Your task to perform on an android device: Go to Google Image 0: 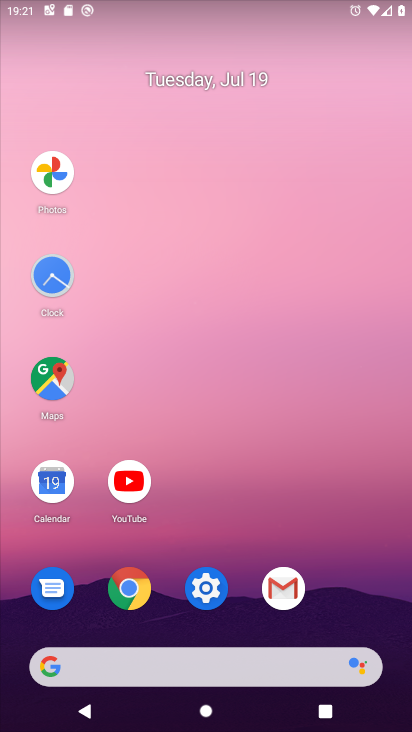
Step 0: click (45, 665)
Your task to perform on an android device: Go to Google Image 1: 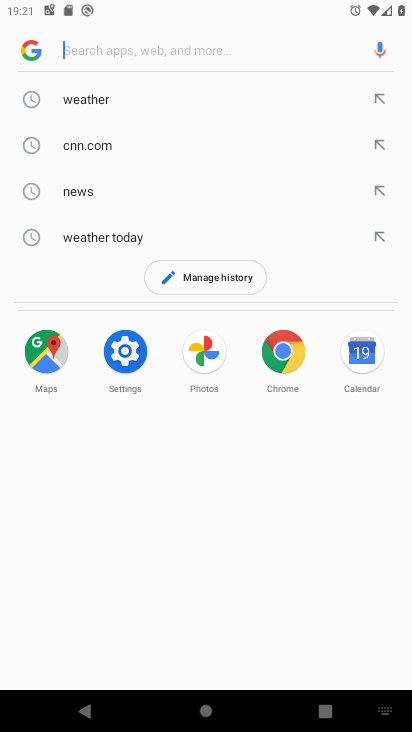
Step 1: click (25, 44)
Your task to perform on an android device: Go to Google Image 2: 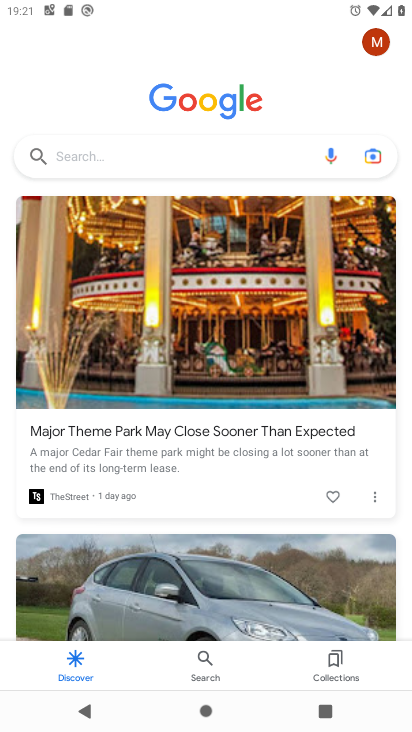
Step 2: task complete